Your task to perform on an android device: show emergency info Image 0: 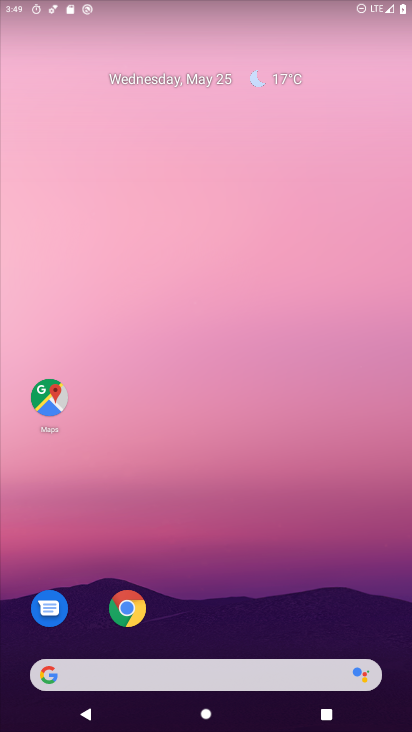
Step 0: drag from (295, 517) to (261, 103)
Your task to perform on an android device: show emergency info Image 1: 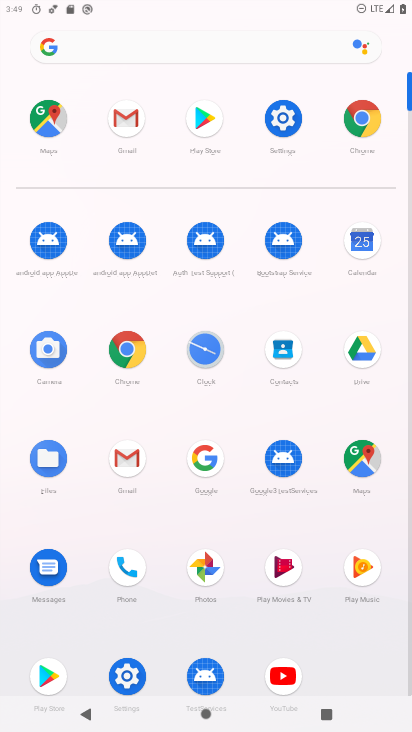
Step 1: click (284, 111)
Your task to perform on an android device: show emergency info Image 2: 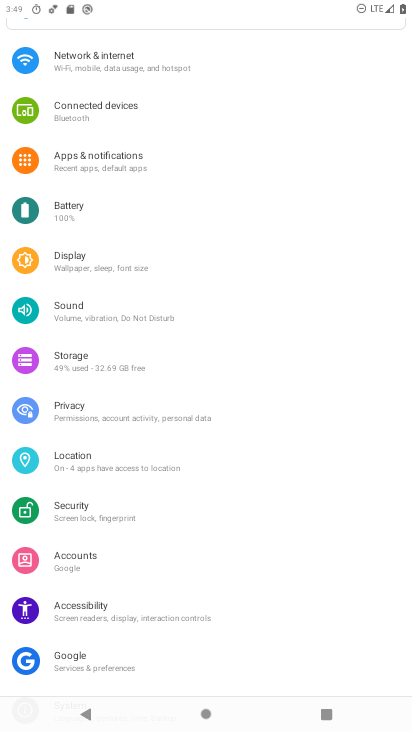
Step 2: drag from (76, 680) to (183, 37)
Your task to perform on an android device: show emergency info Image 3: 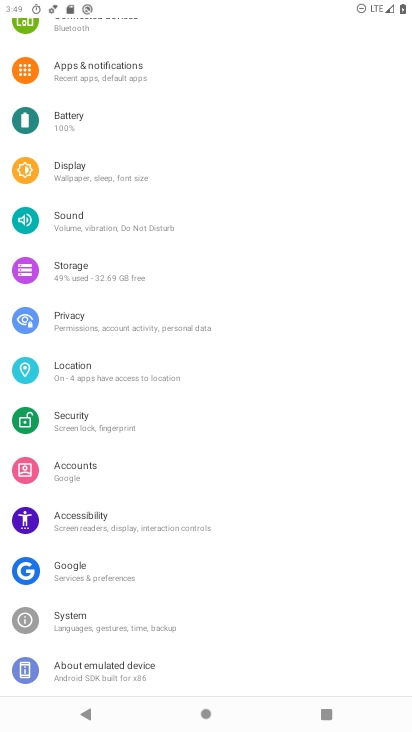
Step 3: click (93, 658)
Your task to perform on an android device: show emergency info Image 4: 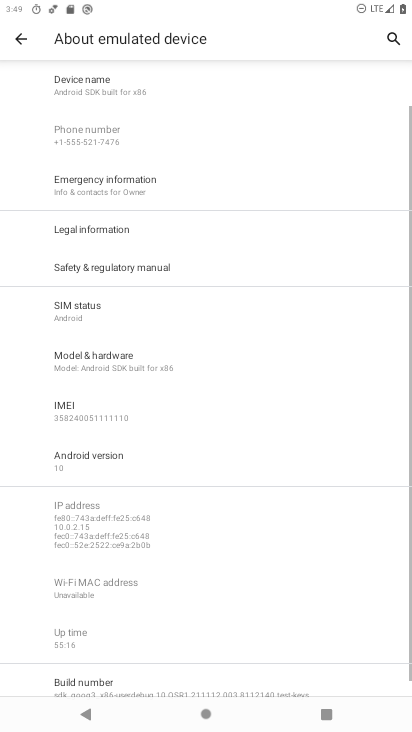
Step 4: click (125, 196)
Your task to perform on an android device: show emergency info Image 5: 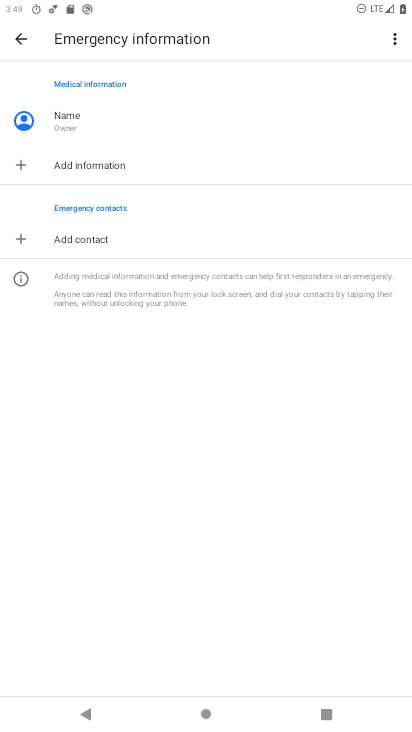
Step 5: task complete